Your task to perform on an android device: turn notification dots on Image 0: 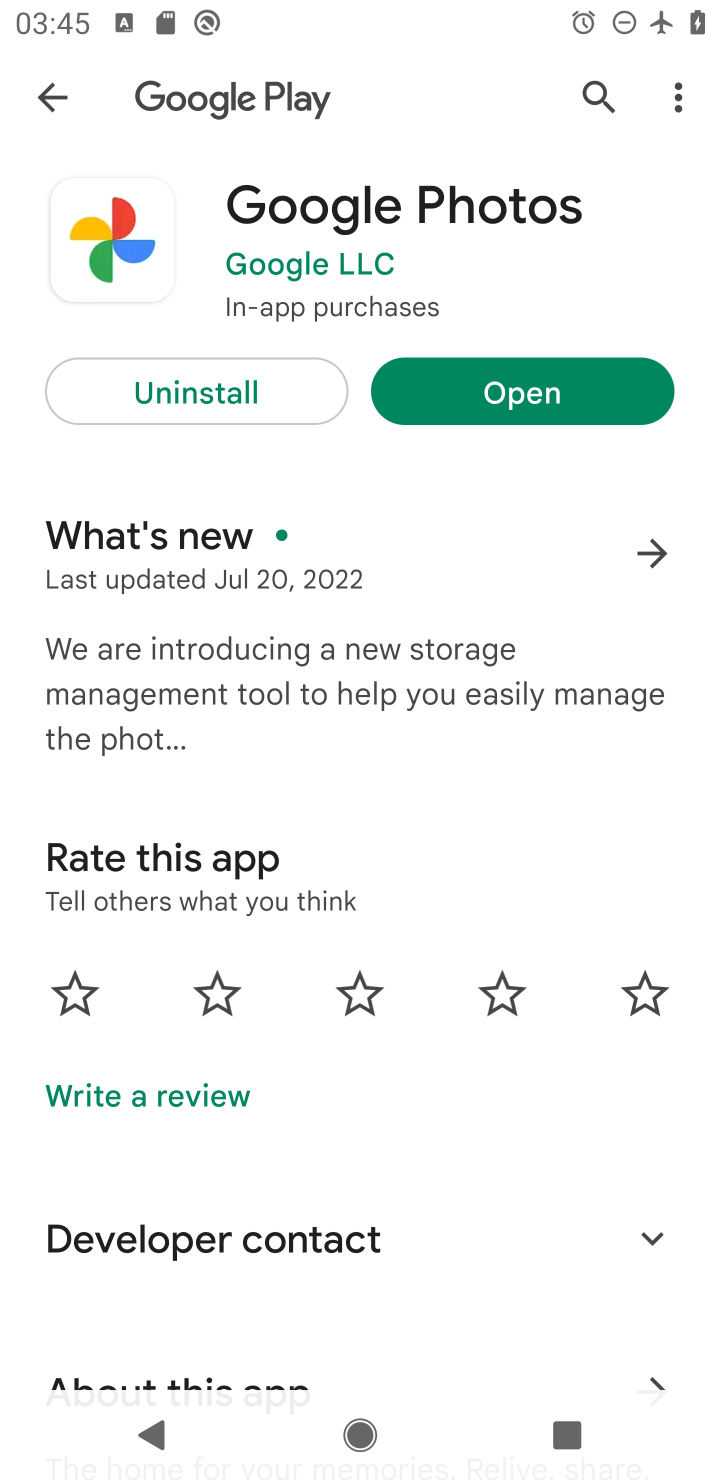
Step 0: press home button
Your task to perform on an android device: turn notification dots on Image 1: 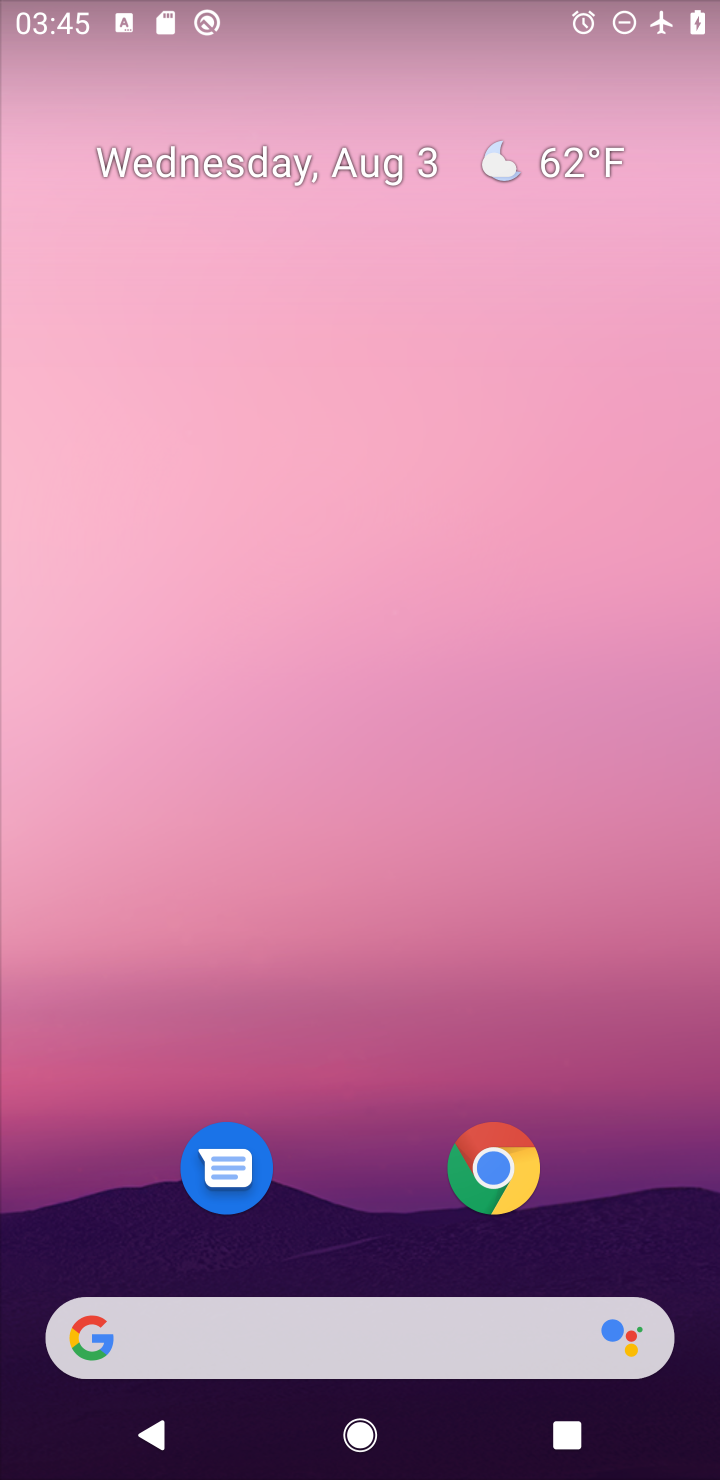
Step 1: drag from (671, 1253) to (613, 266)
Your task to perform on an android device: turn notification dots on Image 2: 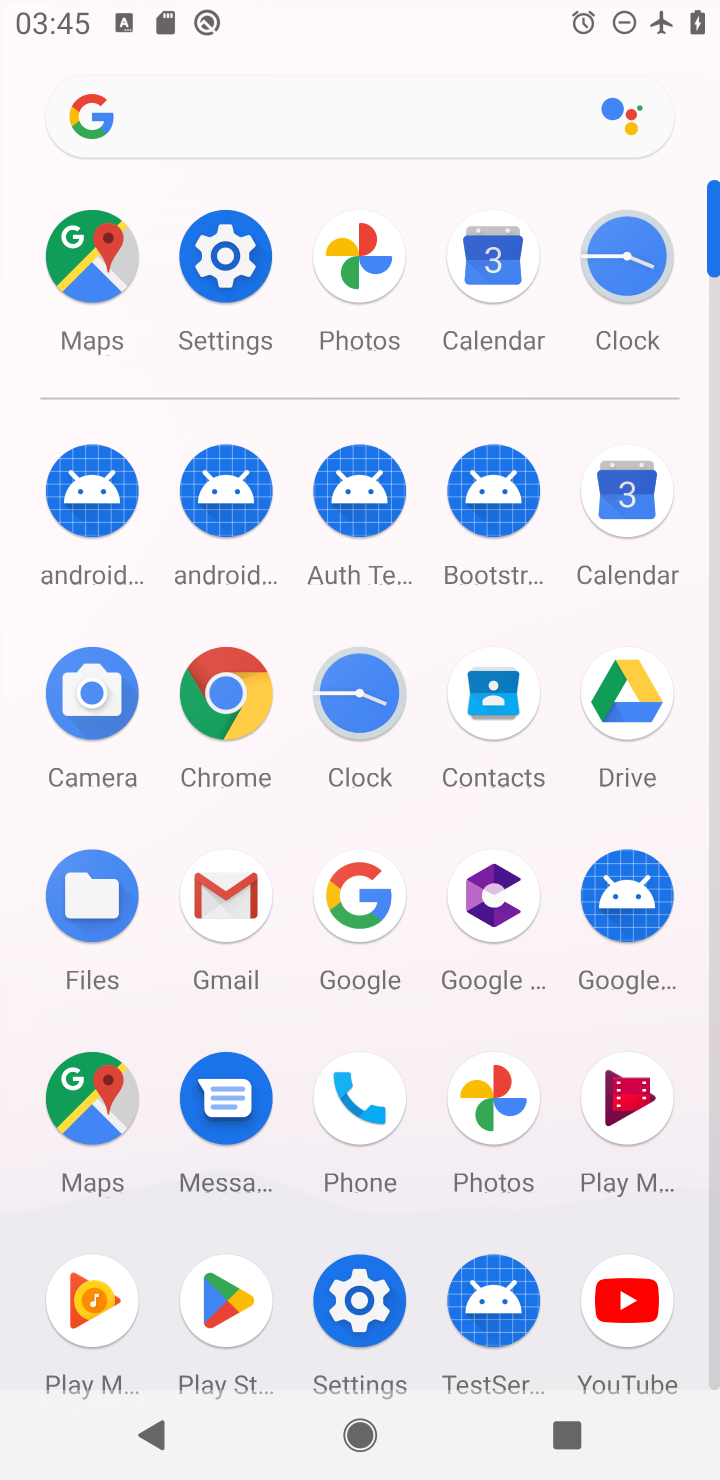
Step 2: click (357, 1306)
Your task to perform on an android device: turn notification dots on Image 3: 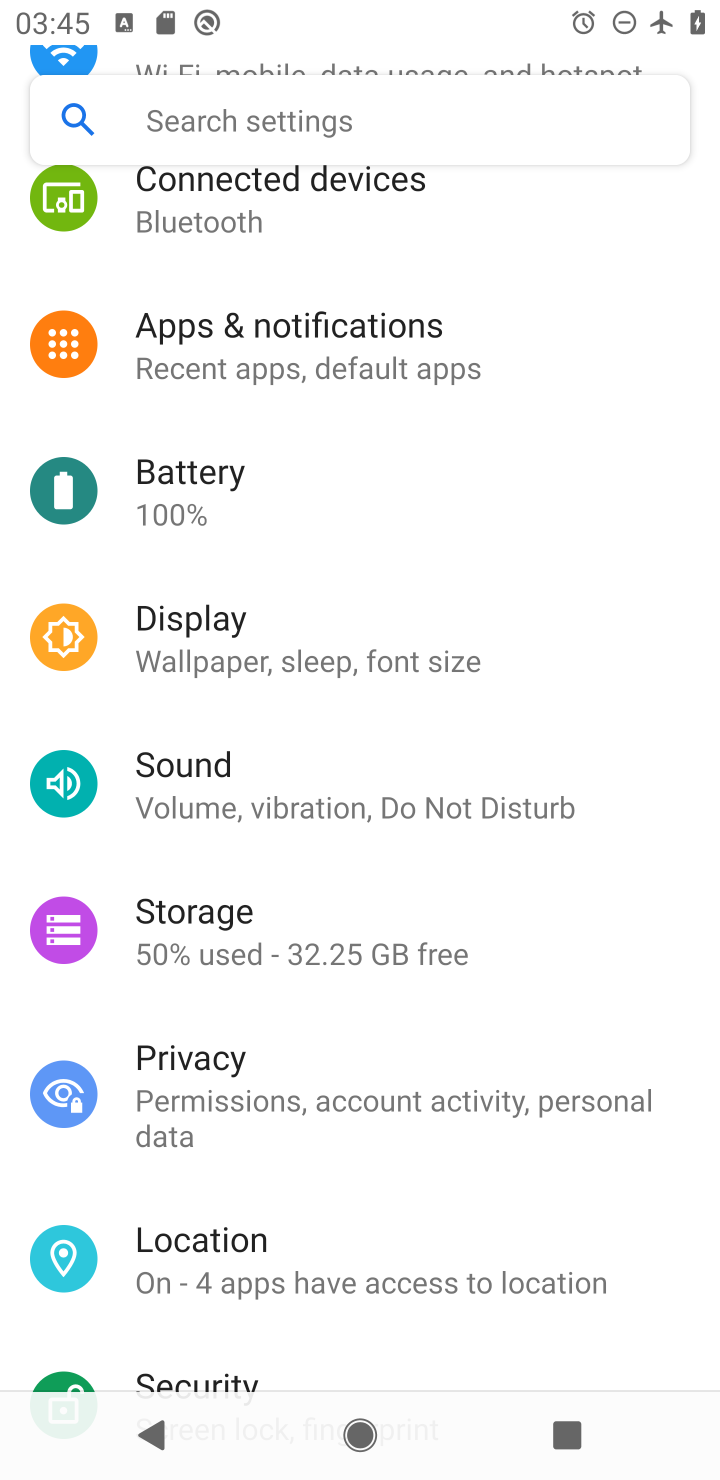
Step 3: click (244, 326)
Your task to perform on an android device: turn notification dots on Image 4: 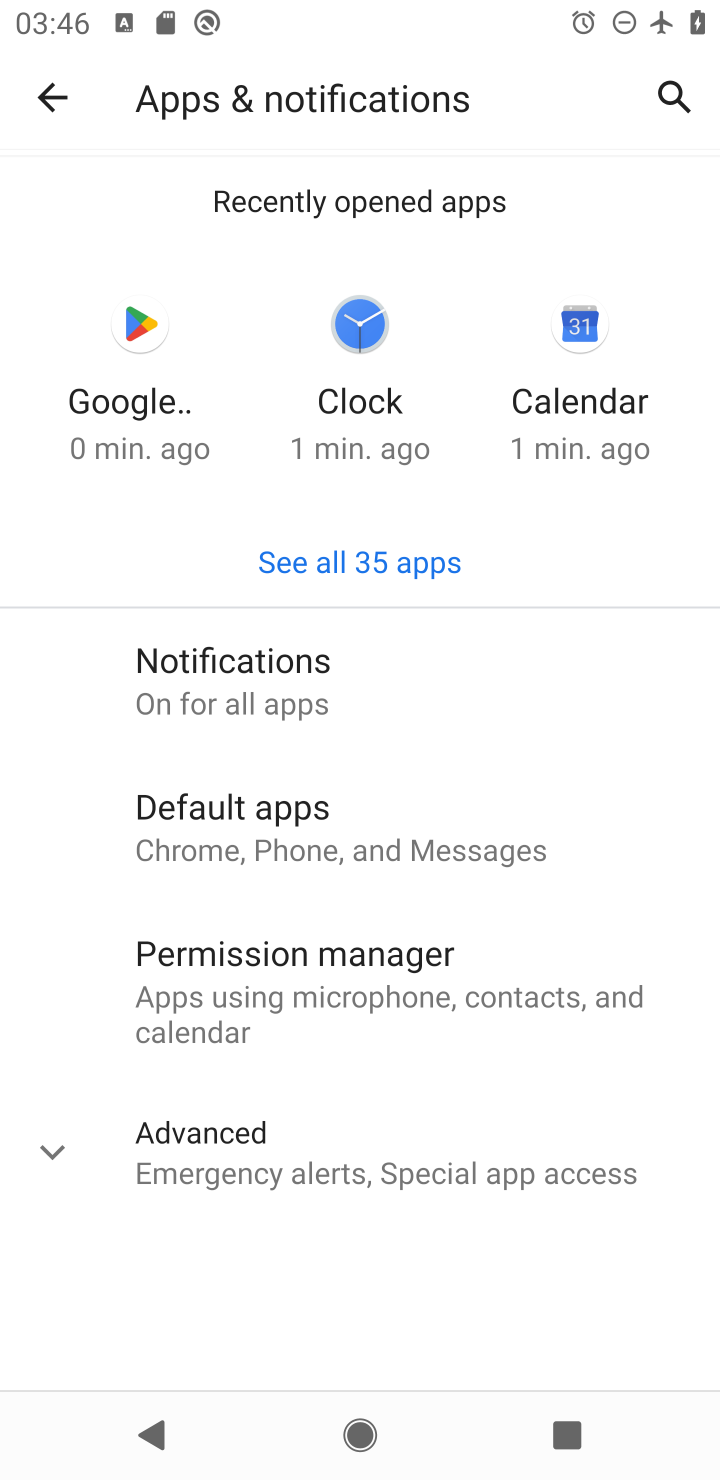
Step 4: click (204, 673)
Your task to perform on an android device: turn notification dots on Image 5: 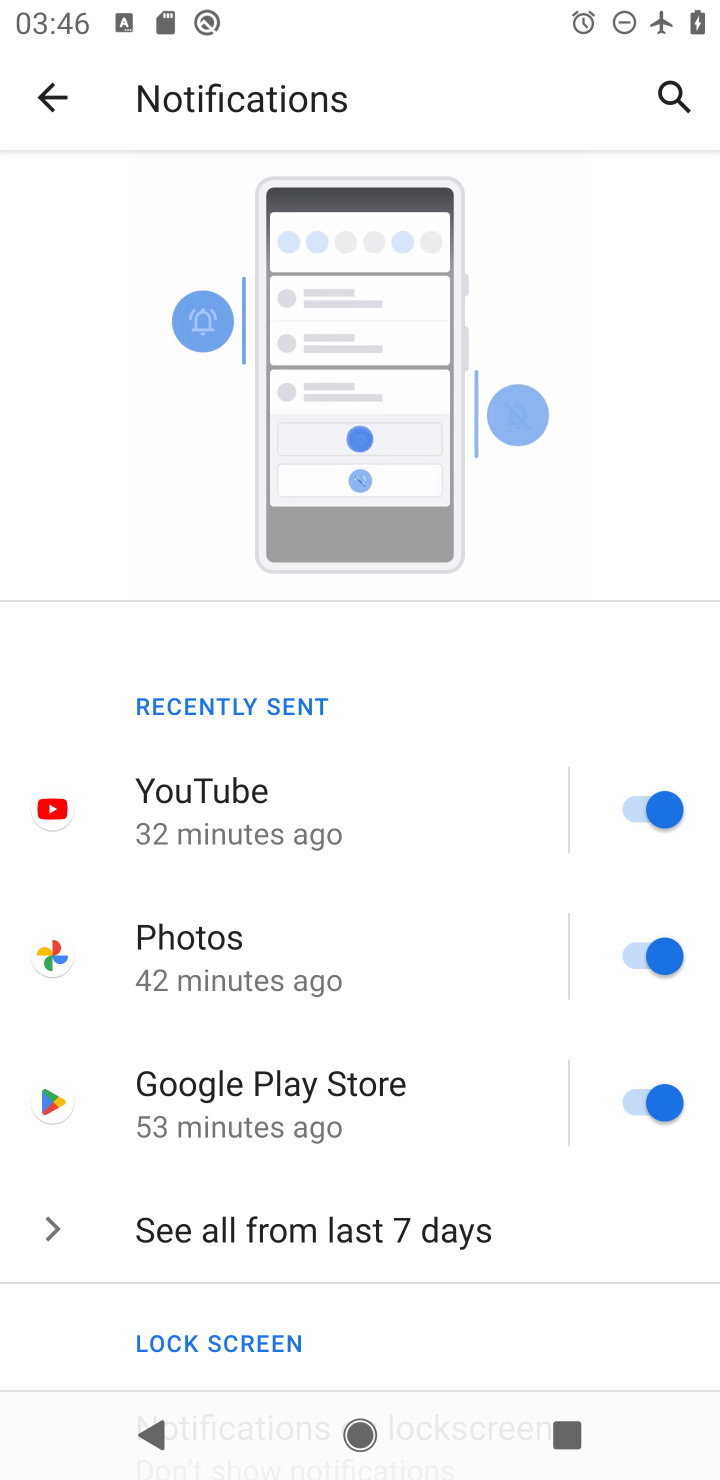
Step 5: drag from (554, 1240) to (593, 427)
Your task to perform on an android device: turn notification dots on Image 6: 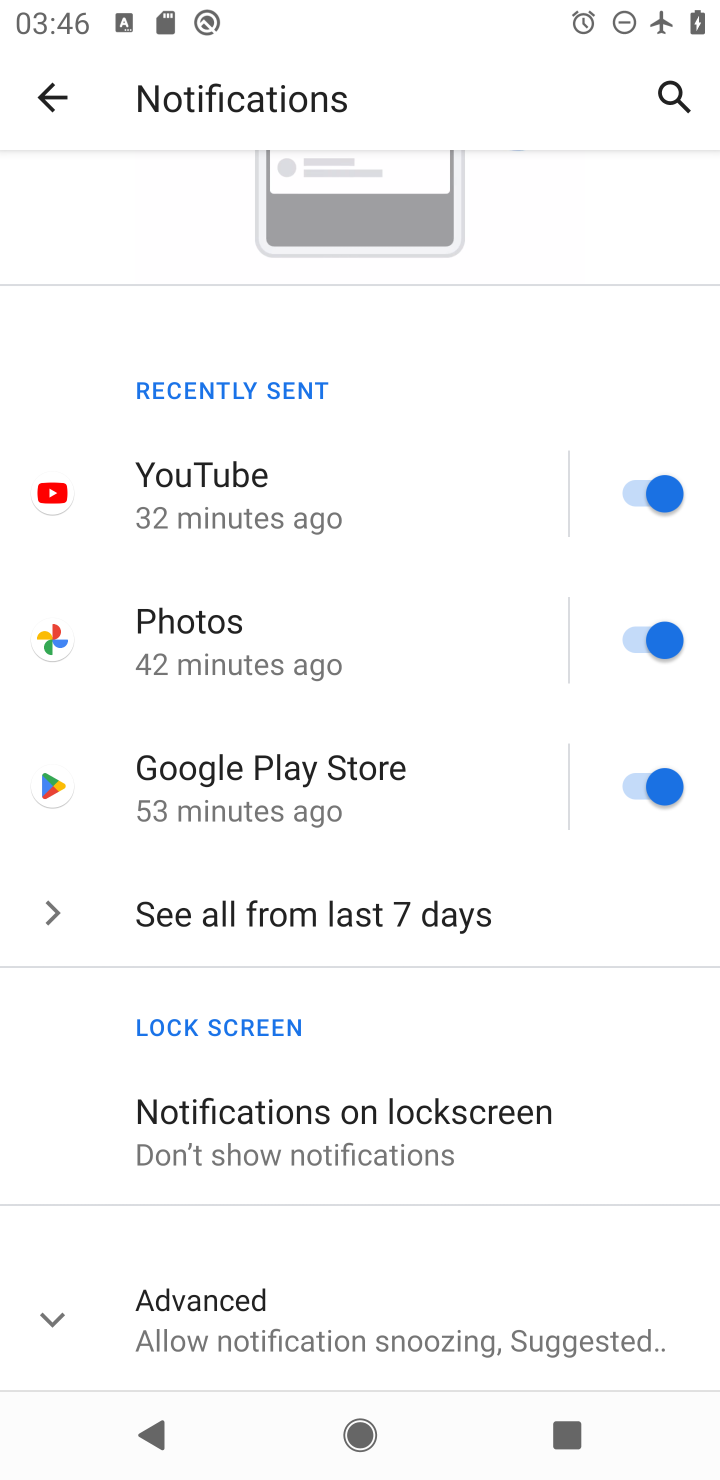
Step 6: click (46, 1313)
Your task to perform on an android device: turn notification dots on Image 7: 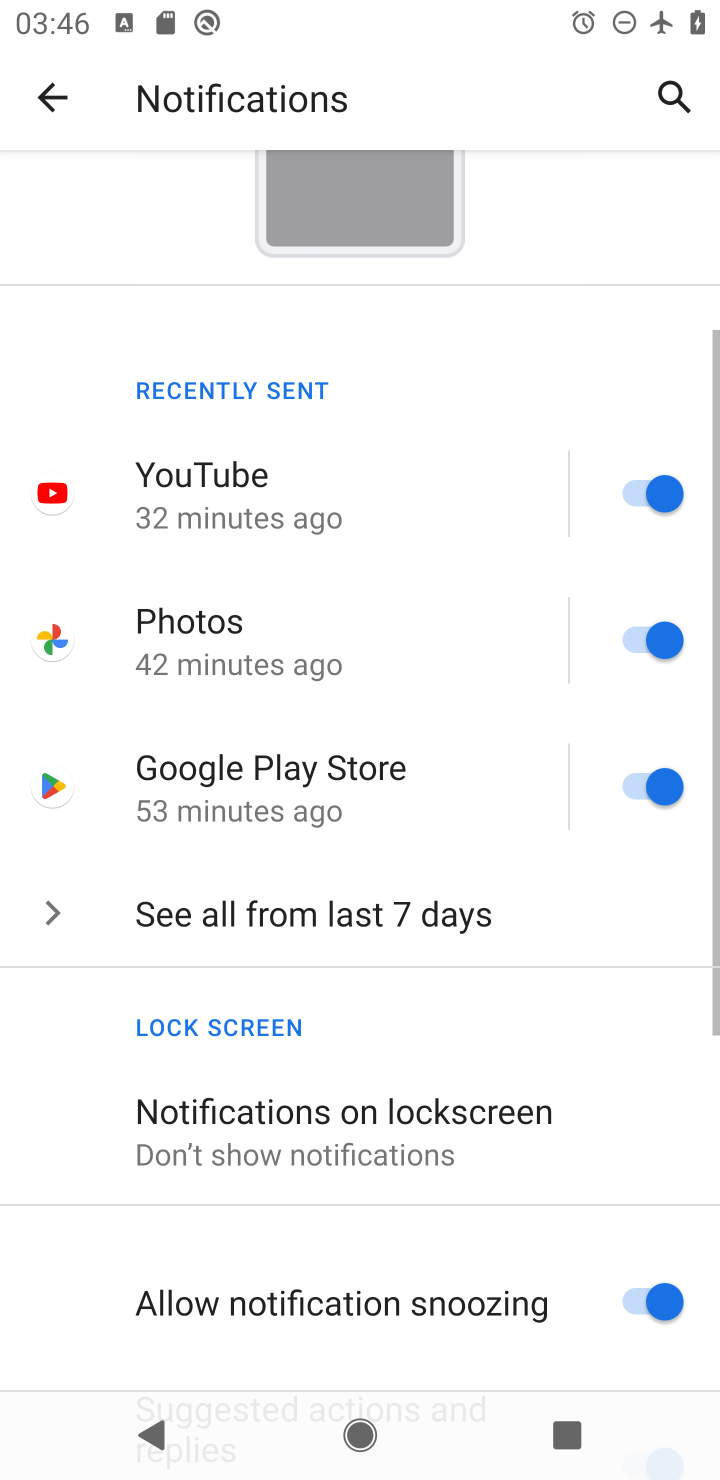
Step 7: task complete